Your task to perform on an android device: delete location history Image 0: 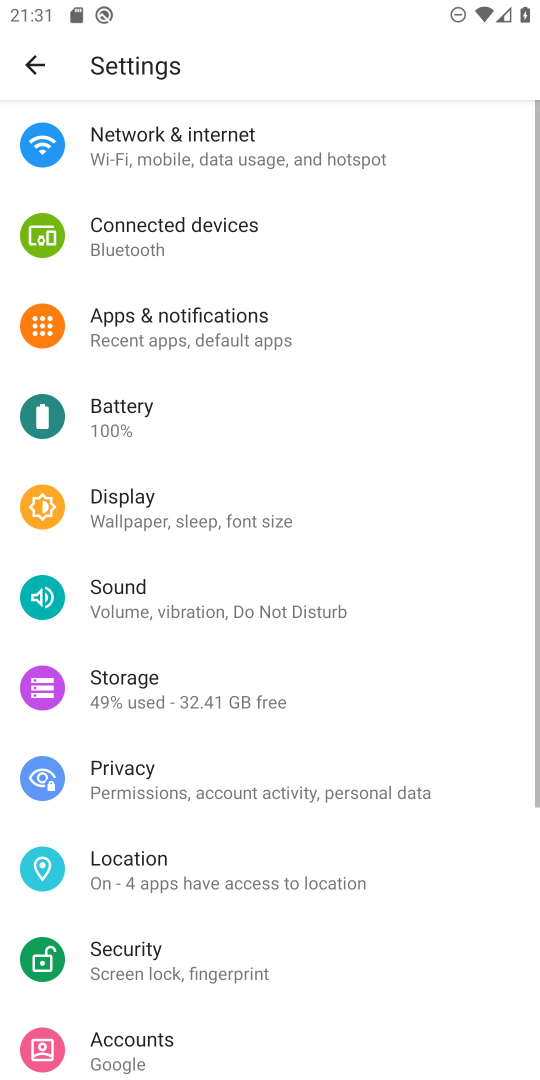
Step 0: press home button
Your task to perform on an android device: delete location history Image 1: 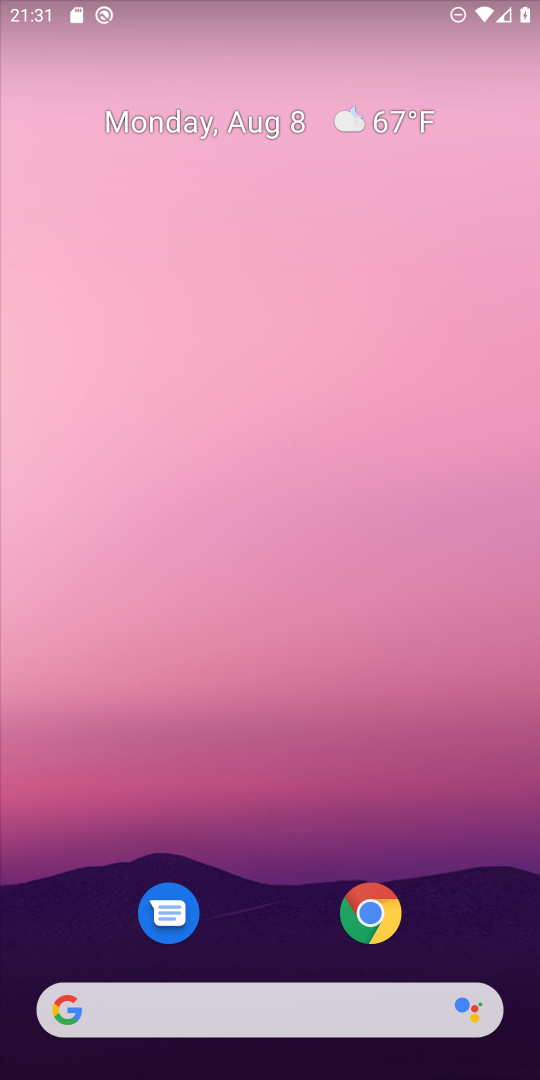
Step 1: drag from (230, 1008) to (254, 175)
Your task to perform on an android device: delete location history Image 2: 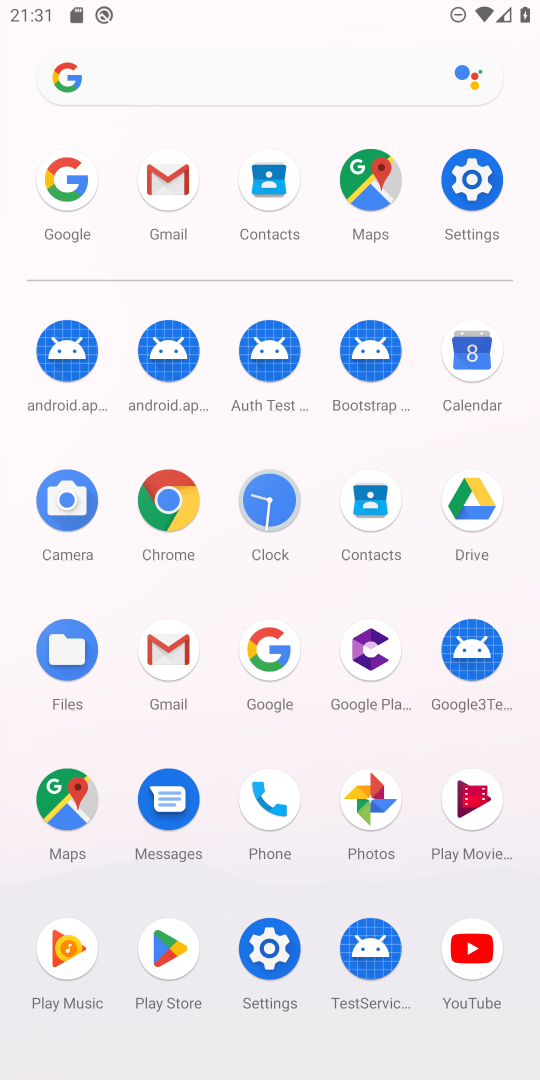
Step 2: click (371, 181)
Your task to perform on an android device: delete location history Image 3: 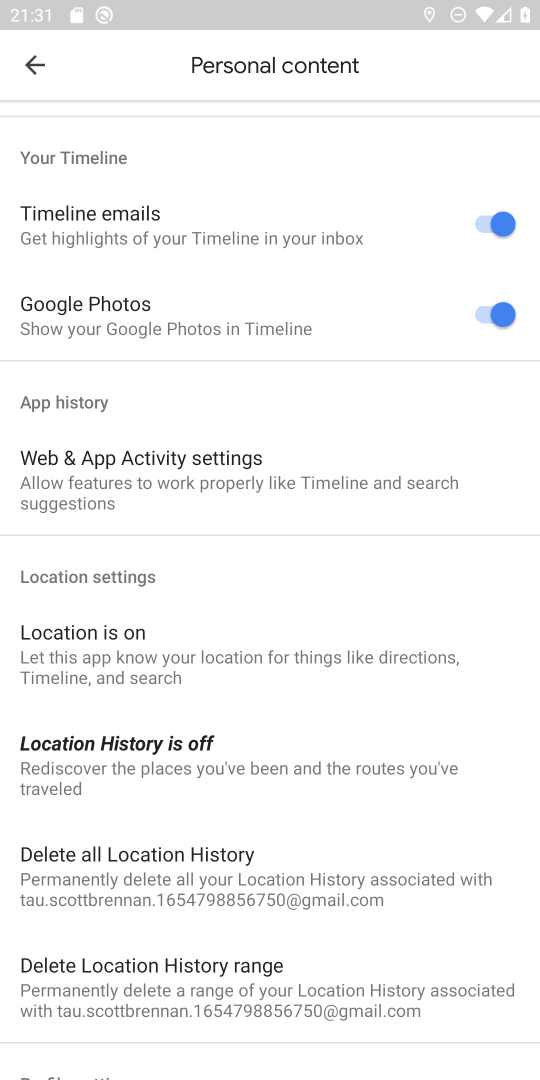
Step 3: click (143, 855)
Your task to perform on an android device: delete location history Image 4: 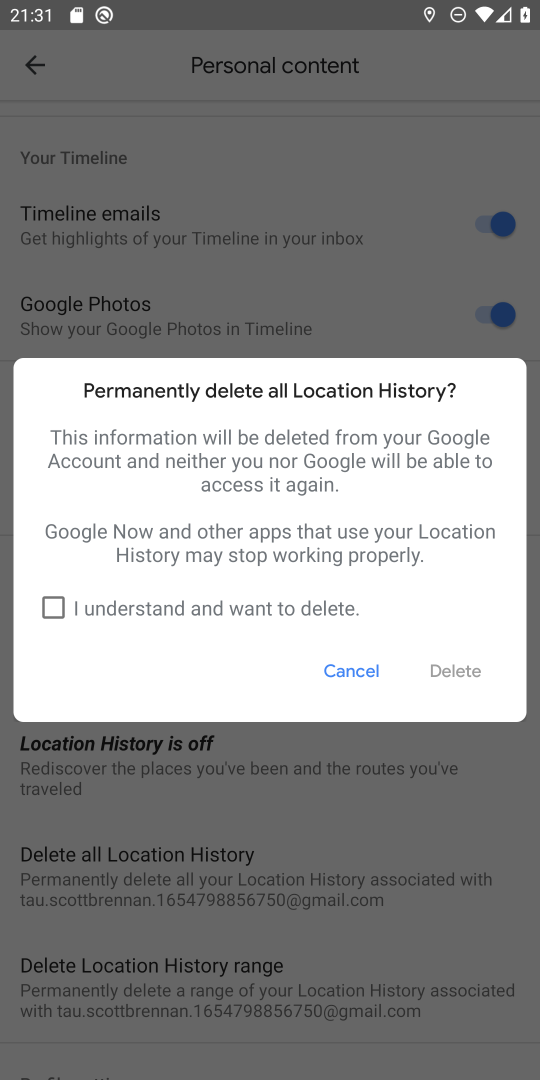
Step 4: click (45, 609)
Your task to perform on an android device: delete location history Image 5: 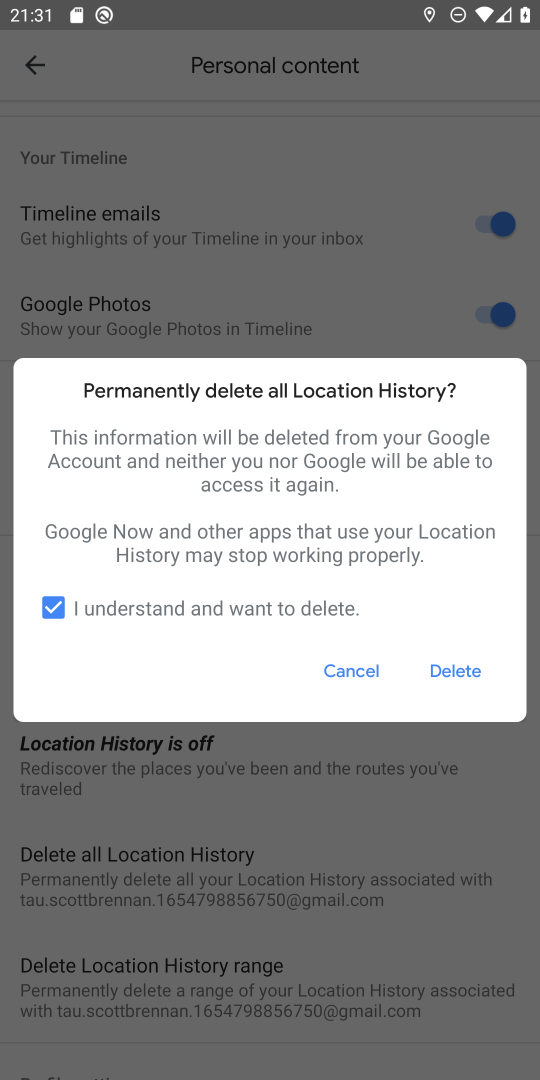
Step 5: click (468, 660)
Your task to perform on an android device: delete location history Image 6: 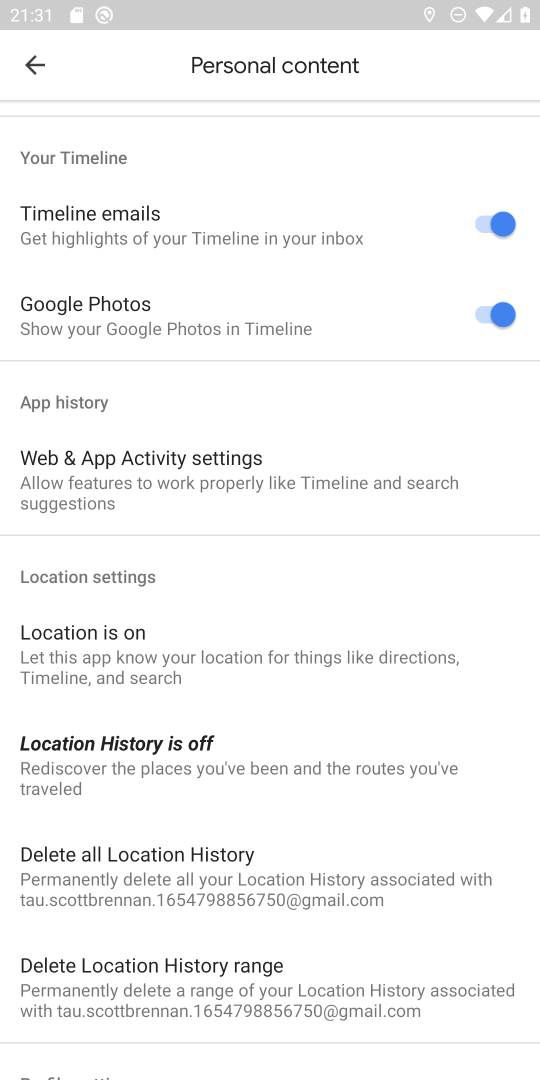
Step 6: task complete